Your task to perform on an android device: set the timer Image 0: 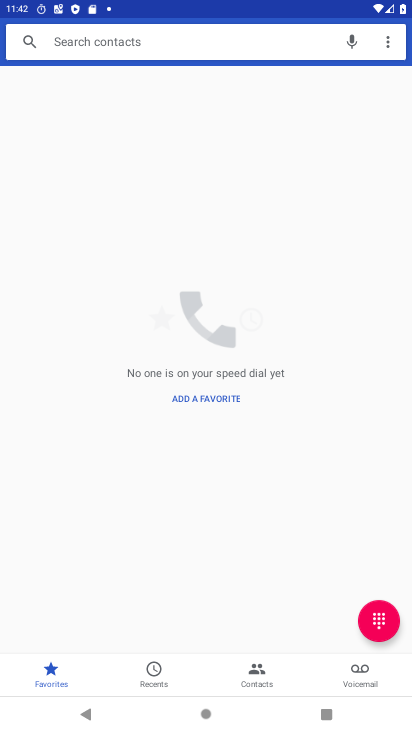
Step 0: press home button
Your task to perform on an android device: set the timer Image 1: 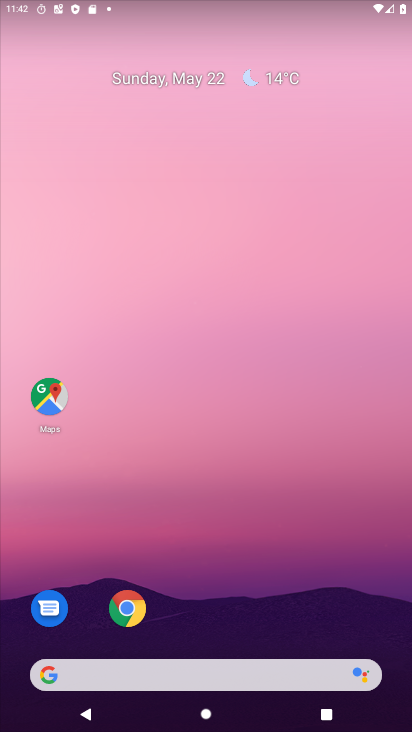
Step 1: drag from (230, 726) to (198, 165)
Your task to perform on an android device: set the timer Image 2: 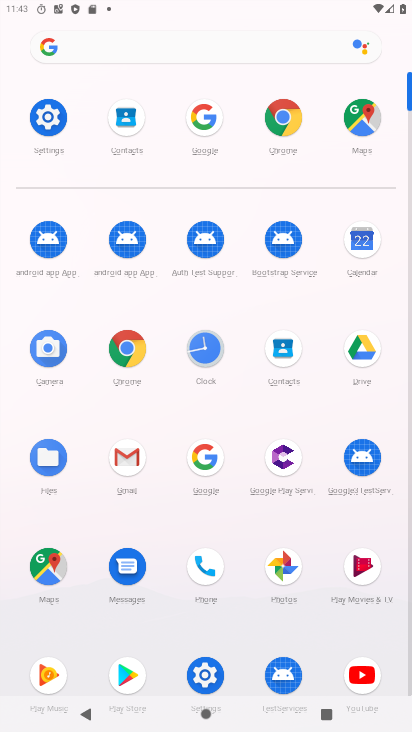
Step 2: click (203, 350)
Your task to perform on an android device: set the timer Image 3: 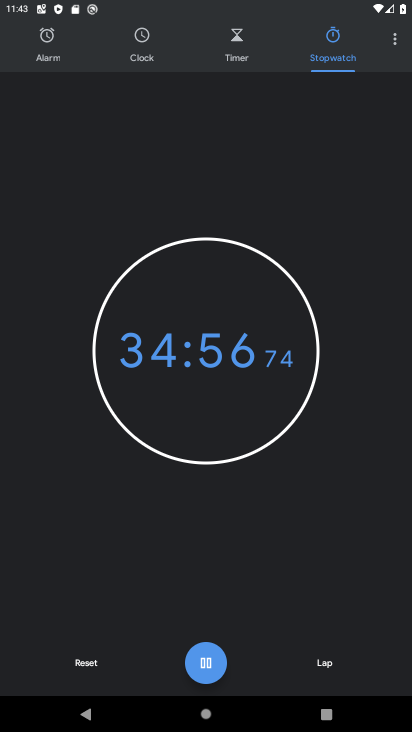
Step 3: click (239, 36)
Your task to perform on an android device: set the timer Image 4: 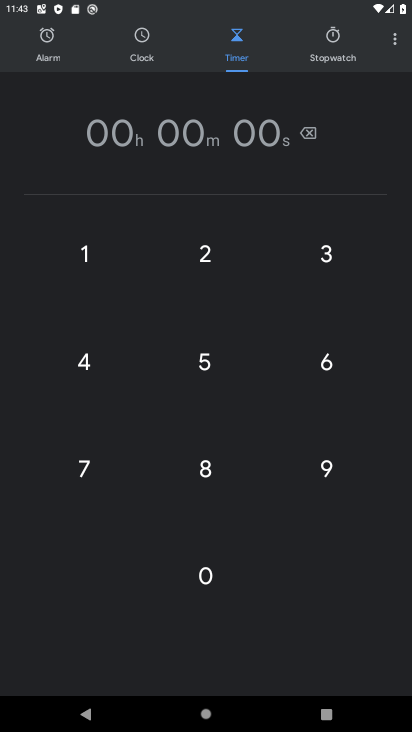
Step 4: click (202, 254)
Your task to perform on an android device: set the timer Image 5: 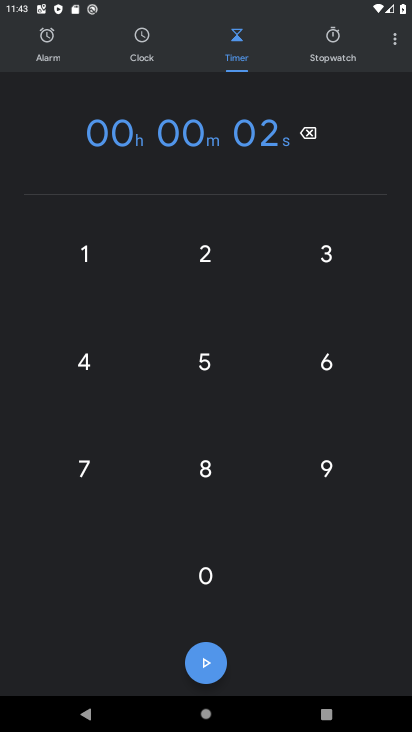
Step 5: click (78, 360)
Your task to perform on an android device: set the timer Image 6: 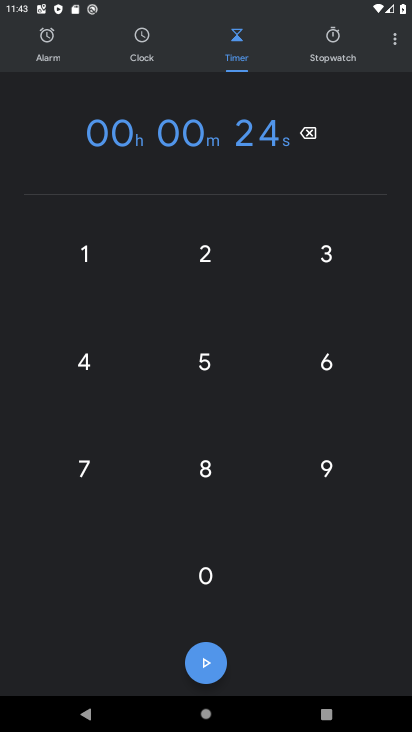
Step 6: click (81, 463)
Your task to perform on an android device: set the timer Image 7: 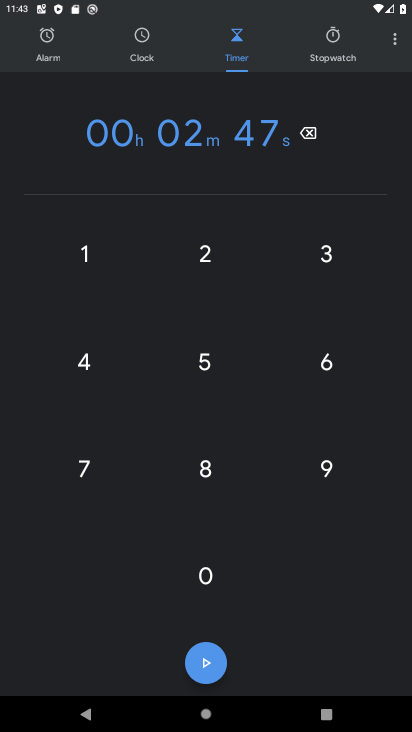
Step 7: click (209, 661)
Your task to perform on an android device: set the timer Image 8: 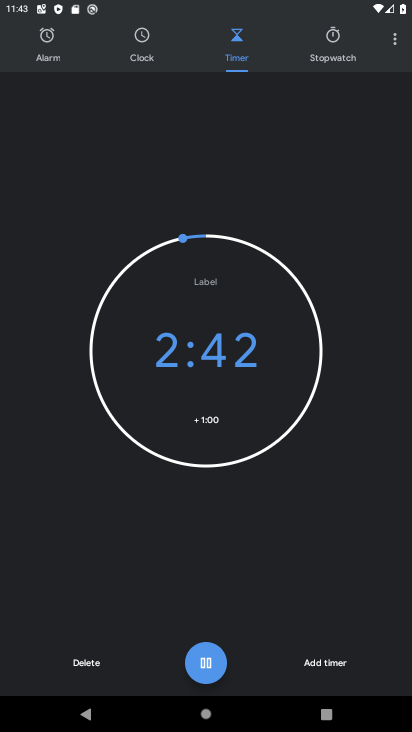
Step 8: task complete